Your task to perform on an android device: Open wifi settings Image 0: 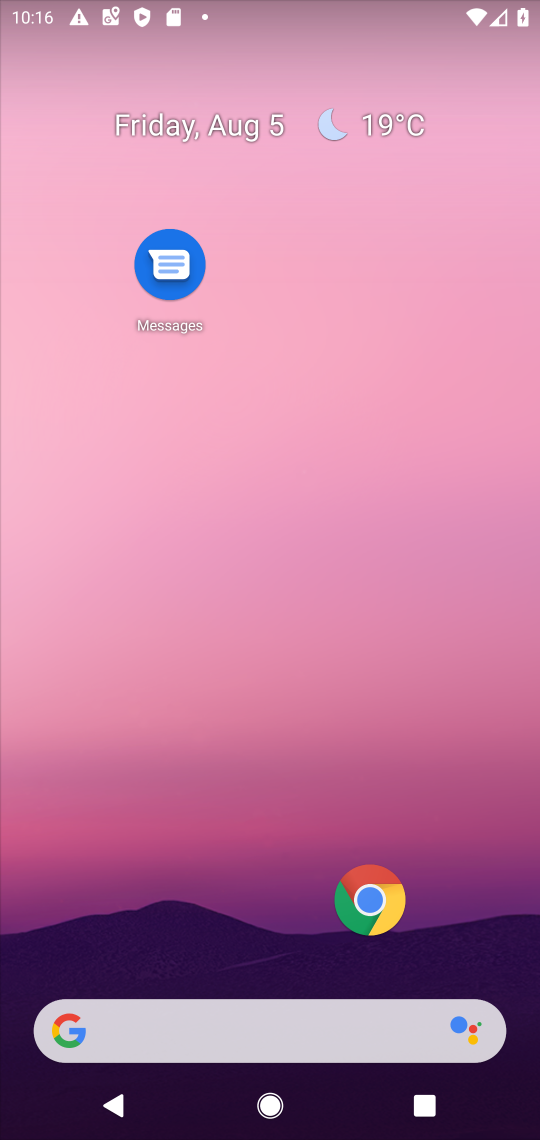
Step 0: press home button
Your task to perform on an android device: Open wifi settings Image 1: 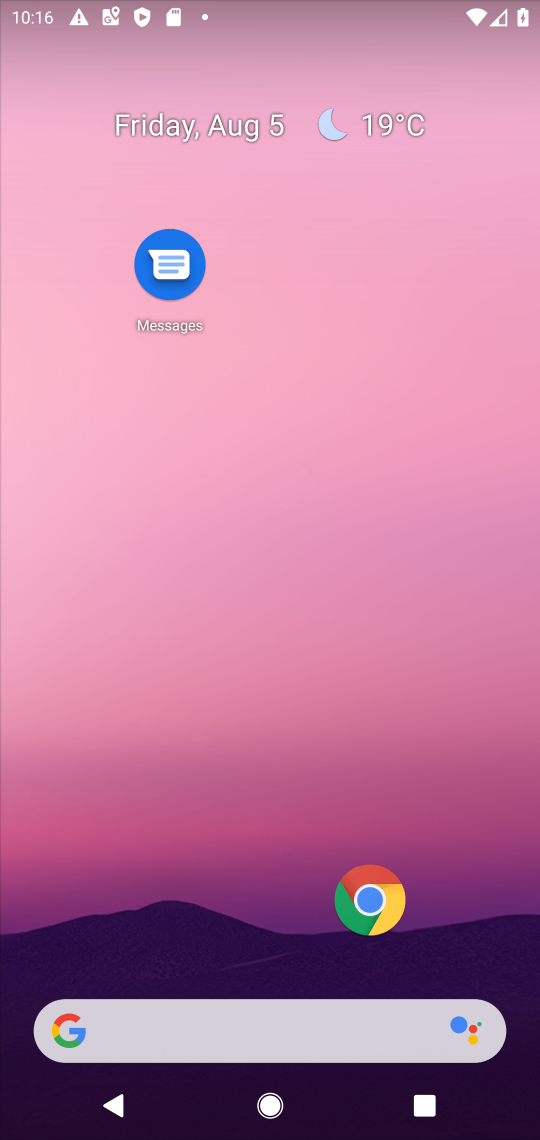
Step 1: drag from (169, 859) to (191, 29)
Your task to perform on an android device: Open wifi settings Image 2: 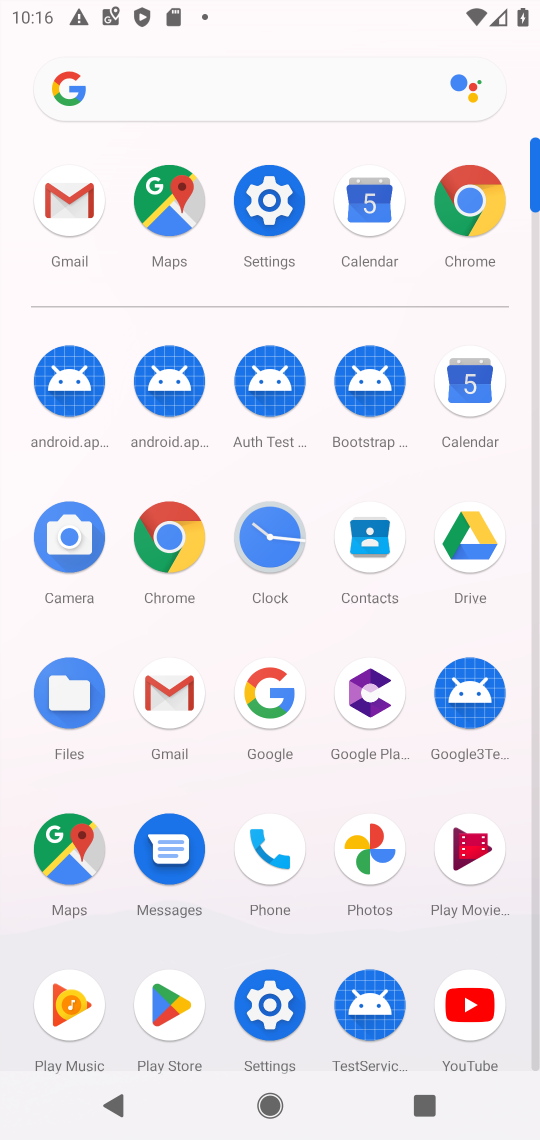
Step 2: drag from (233, 10) to (206, 1085)
Your task to perform on an android device: Open wifi settings Image 3: 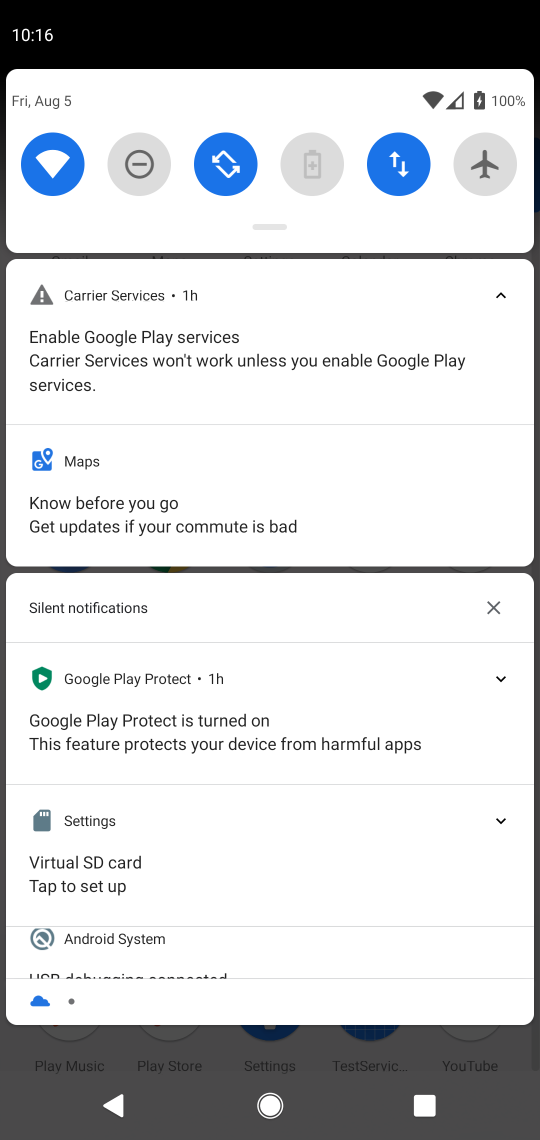
Step 3: click (45, 164)
Your task to perform on an android device: Open wifi settings Image 4: 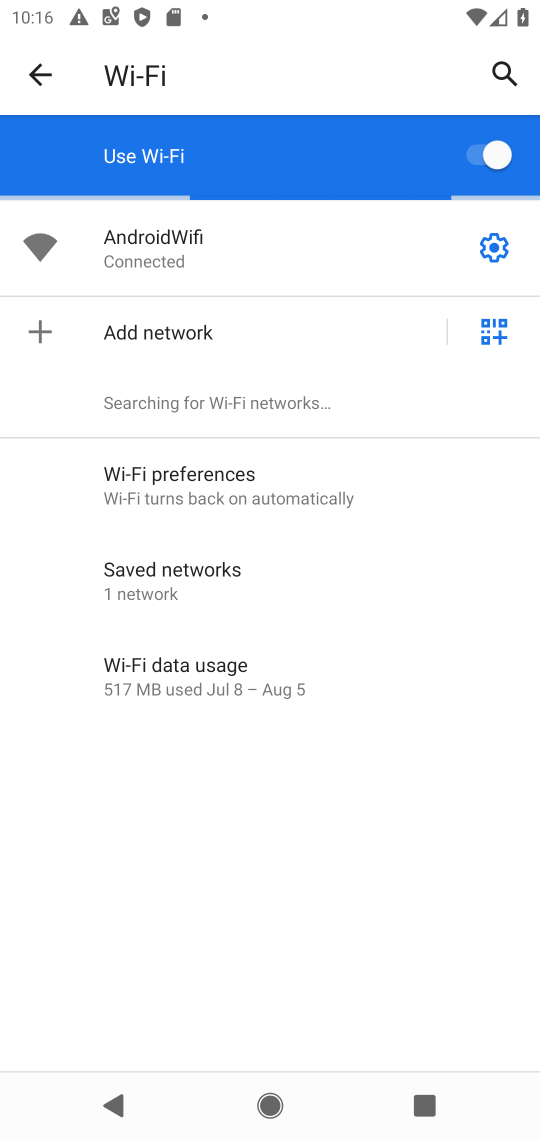
Step 4: task complete